Your task to perform on an android device: add a label to a message in the gmail app Image 0: 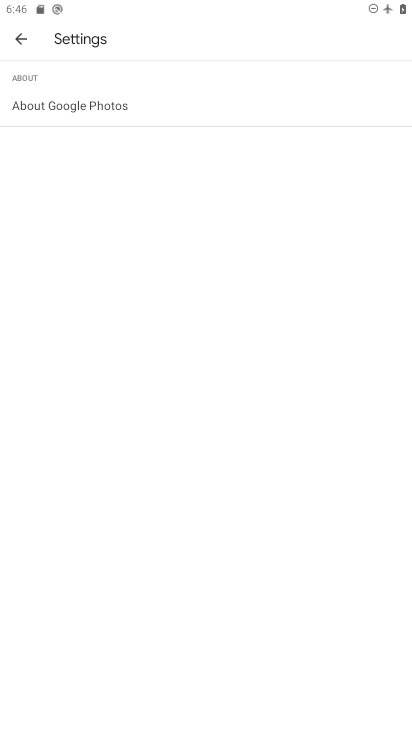
Step 0: press home button
Your task to perform on an android device: add a label to a message in the gmail app Image 1: 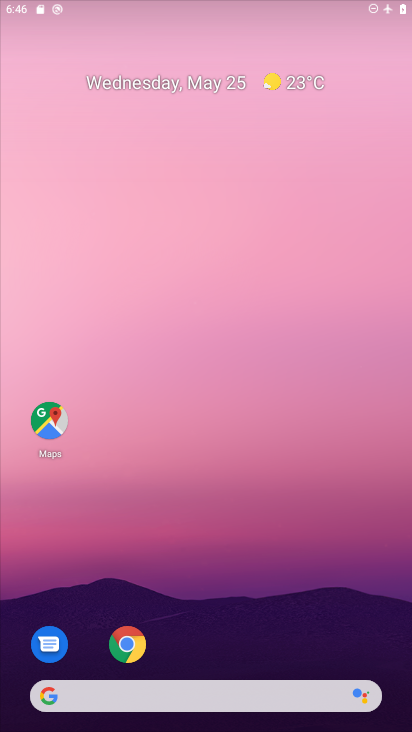
Step 1: drag from (390, 646) to (279, 17)
Your task to perform on an android device: add a label to a message in the gmail app Image 2: 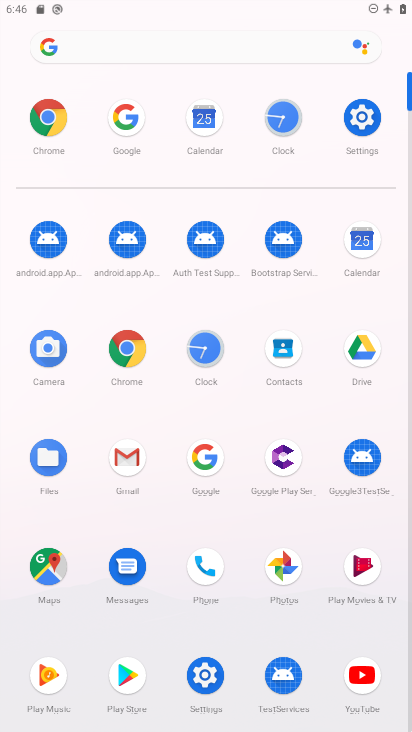
Step 2: click (111, 462)
Your task to perform on an android device: add a label to a message in the gmail app Image 3: 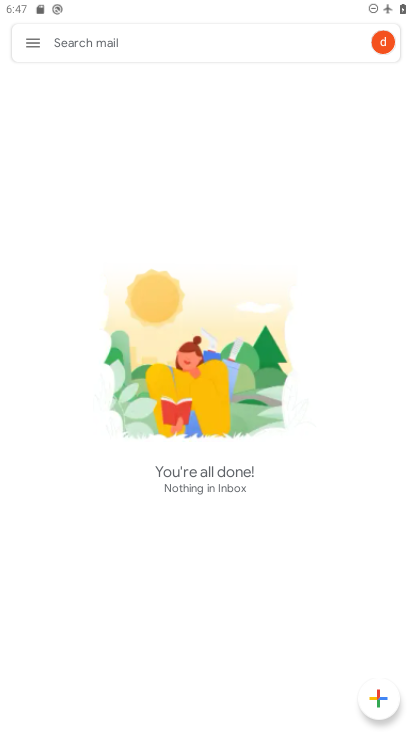
Step 3: task complete